Your task to perform on an android device: empty trash in google photos Image 0: 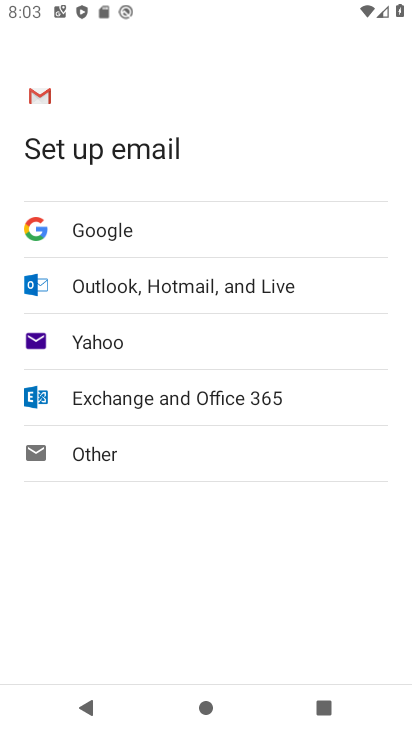
Step 0: press home button
Your task to perform on an android device: empty trash in google photos Image 1: 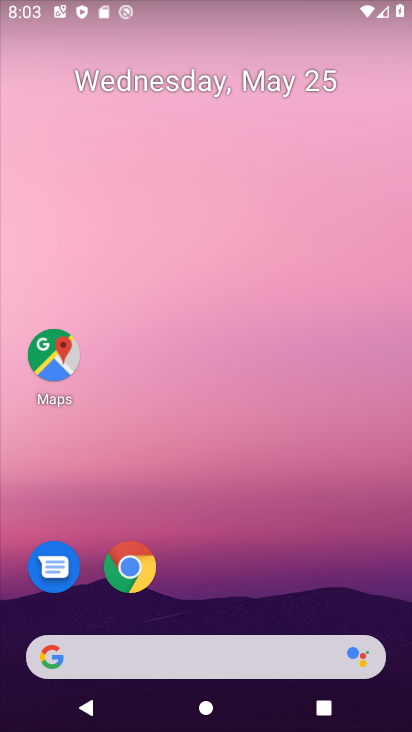
Step 1: drag from (271, 617) to (303, 182)
Your task to perform on an android device: empty trash in google photos Image 2: 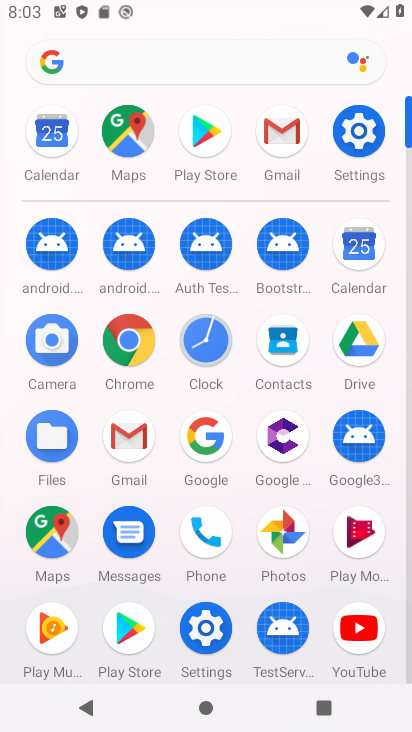
Step 2: click (286, 545)
Your task to perform on an android device: empty trash in google photos Image 3: 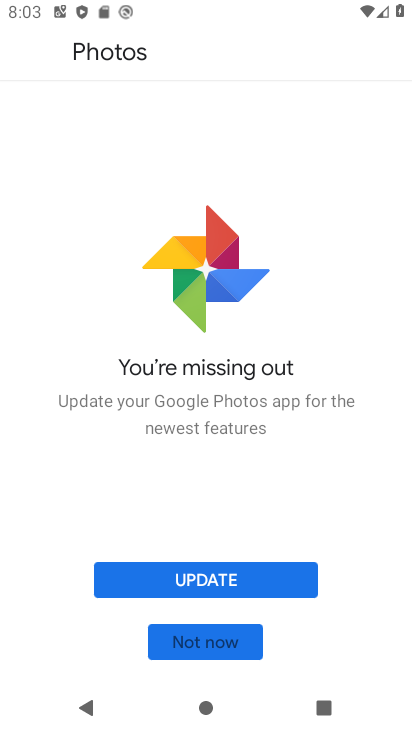
Step 3: click (262, 592)
Your task to perform on an android device: empty trash in google photos Image 4: 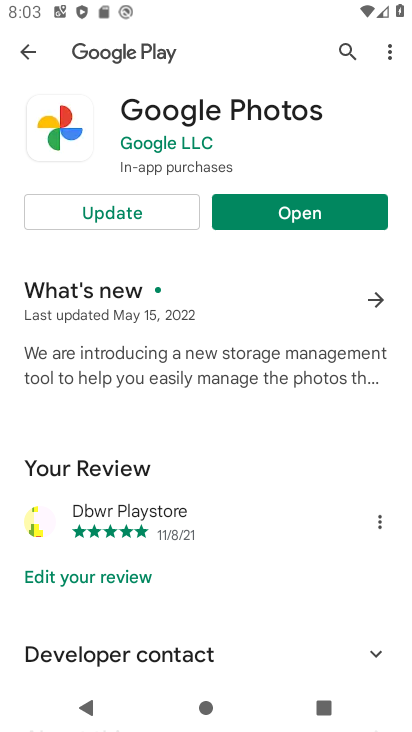
Step 4: click (168, 220)
Your task to perform on an android device: empty trash in google photos Image 5: 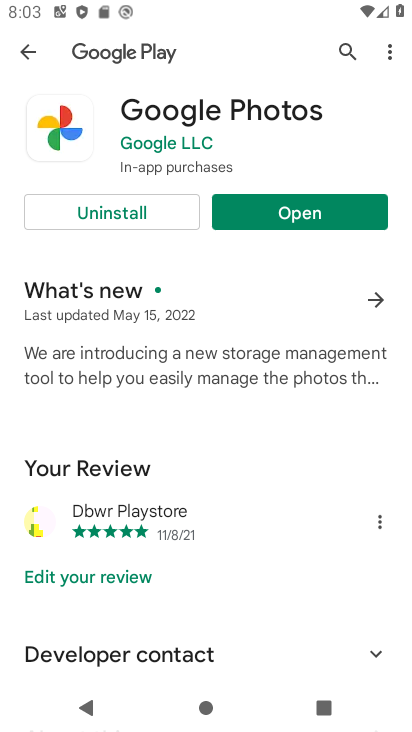
Step 5: click (259, 220)
Your task to perform on an android device: empty trash in google photos Image 6: 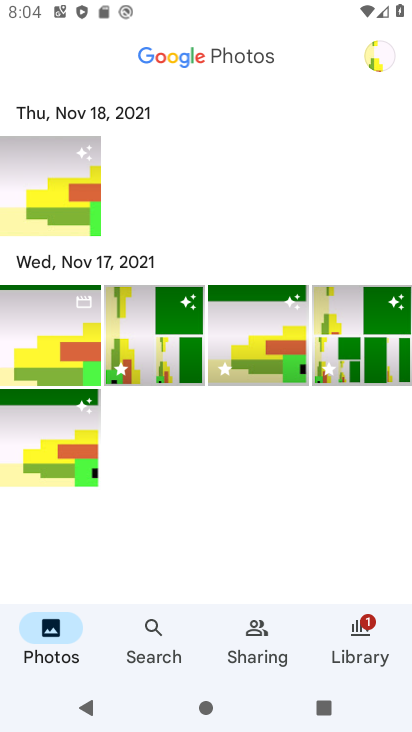
Step 6: click (370, 643)
Your task to perform on an android device: empty trash in google photos Image 7: 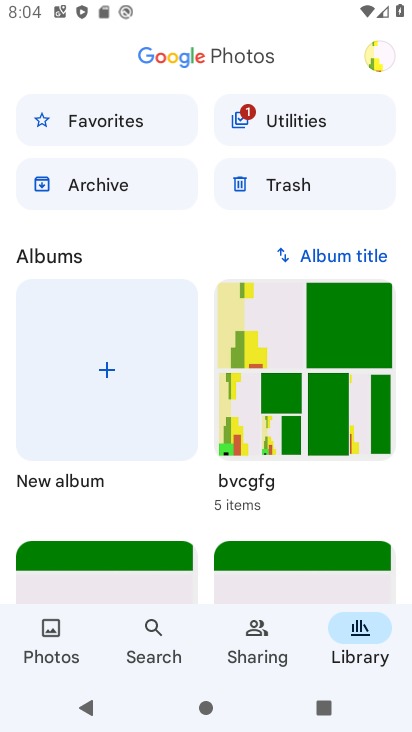
Step 7: click (311, 186)
Your task to perform on an android device: empty trash in google photos Image 8: 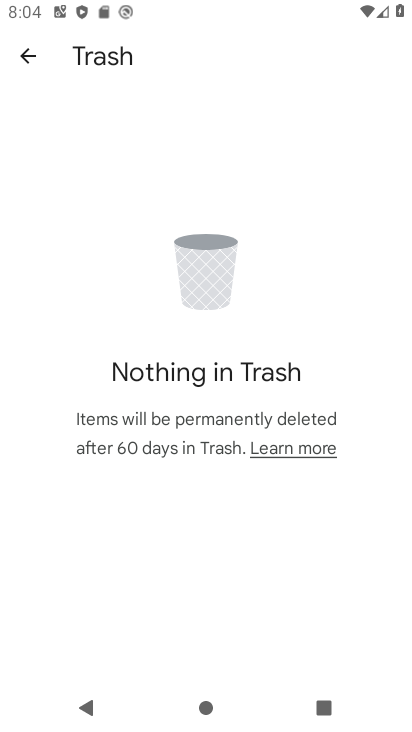
Step 8: task complete